Your task to perform on an android device: Open Google Chrome and click the shortcut for Amazon.com Image 0: 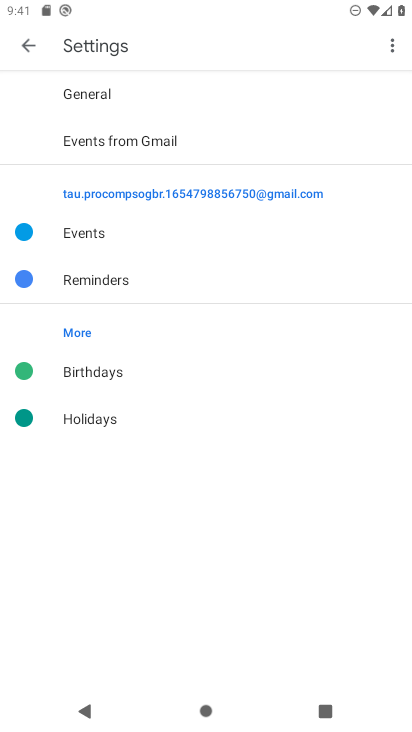
Step 0: press home button
Your task to perform on an android device: Open Google Chrome and click the shortcut for Amazon.com Image 1: 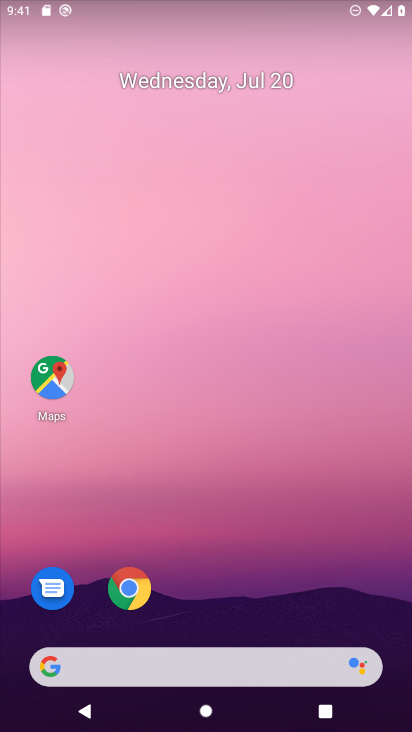
Step 1: click (122, 606)
Your task to perform on an android device: Open Google Chrome and click the shortcut for Amazon.com Image 2: 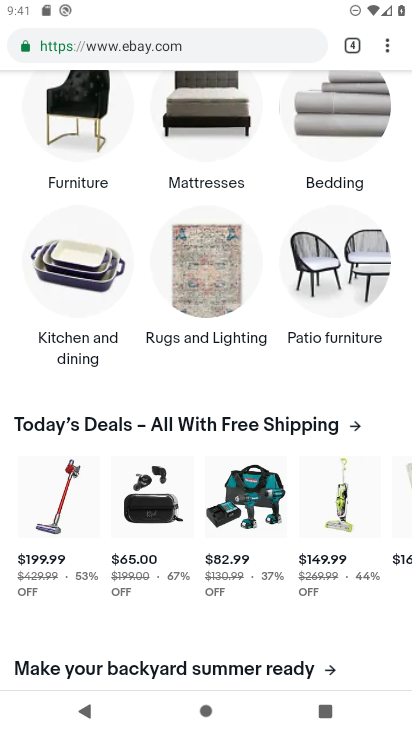
Step 2: click (407, 47)
Your task to perform on an android device: Open Google Chrome and click the shortcut for Amazon.com Image 3: 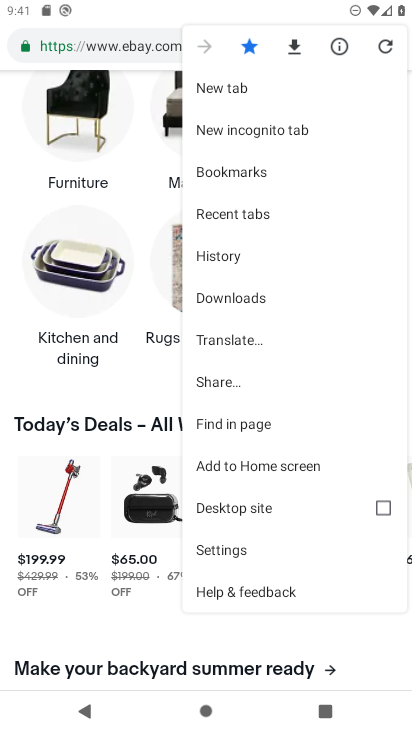
Step 3: click (283, 95)
Your task to perform on an android device: Open Google Chrome and click the shortcut for Amazon.com Image 4: 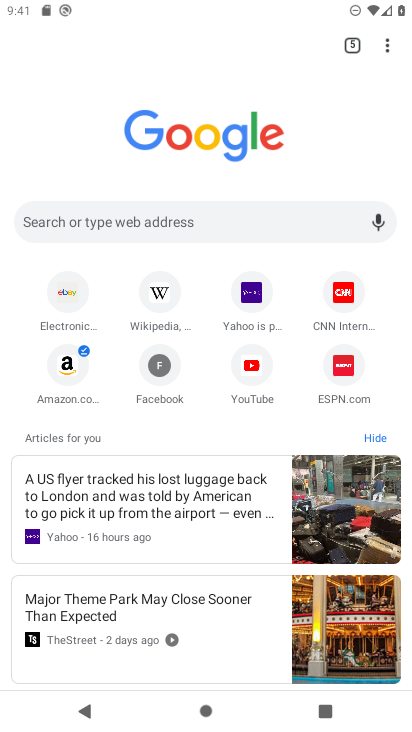
Step 4: click (60, 374)
Your task to perform on an android device: Open Google Chrome and click the shortcut for Amazon.com Image 5: 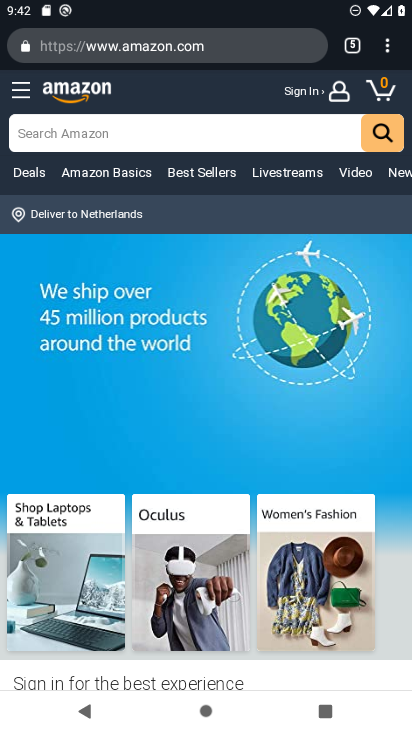
Step 5: task complete